Your task to perform on an android device: Go to CNN.com Image 0: 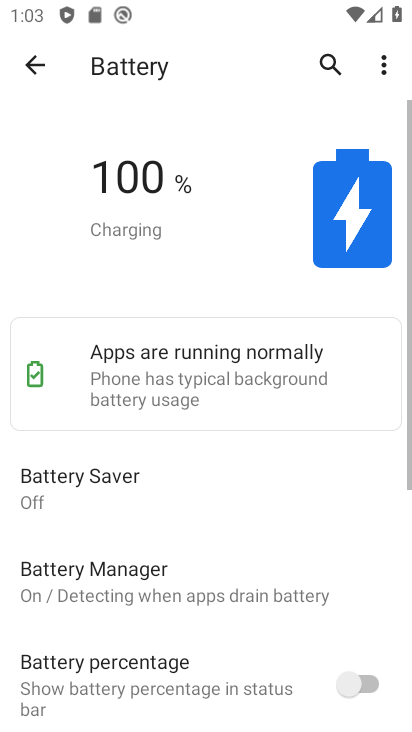
Step 0: press home button
Your task to perform on an android device: Go to CNN.com Image 1: 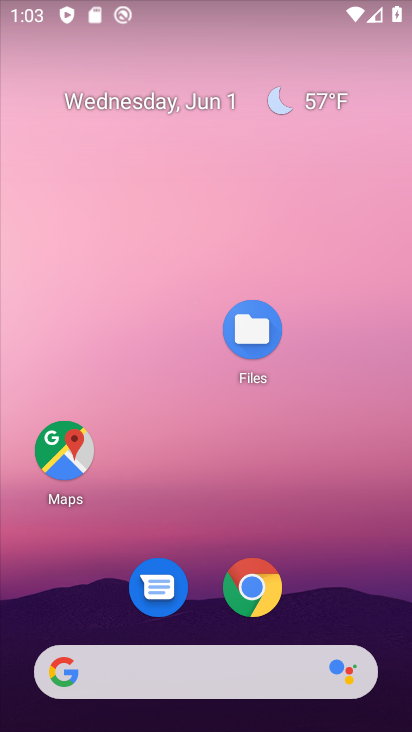
Step 1: click (234, 598)
Your task to perform on an android device: Go to CNN.com Image 2: 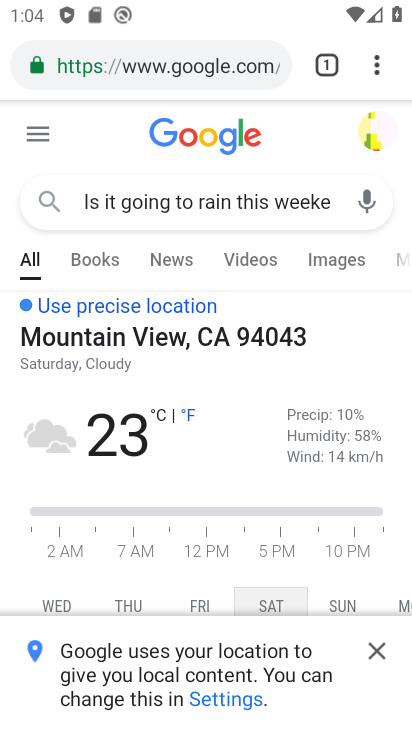
Step 2: click (177, 64)
Your task to perform on an android device: Go to CNN.com Image 3: 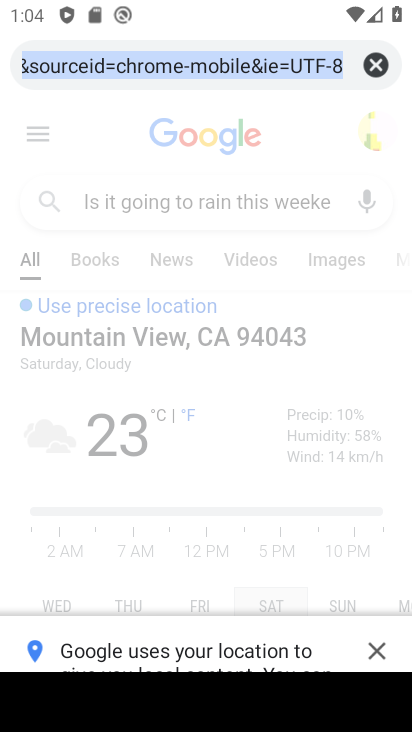
Step 3: click (373, 53)
Your task to perform on an android device: Go to CNN.com Image 4: 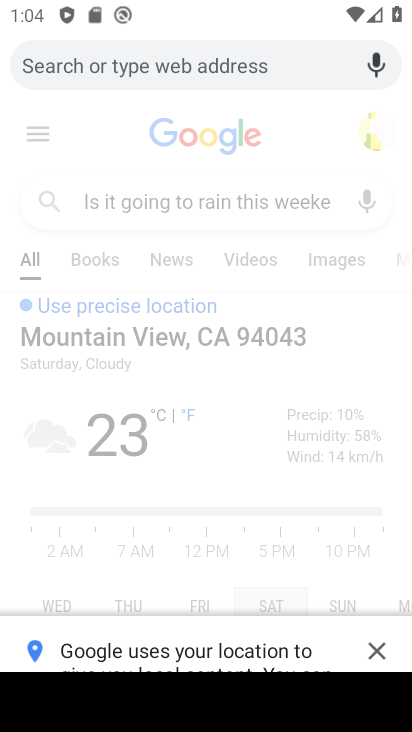
Step 4: type "CNN.com"
Your task to perform on an android device: Go to CNN.com Image 5: 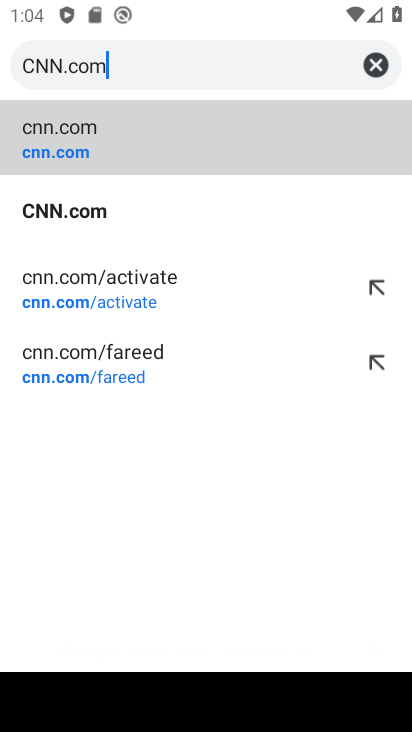
Step 5: click (291, 140)
Your task to perform on an android device: Go to CNN.com Image 6: 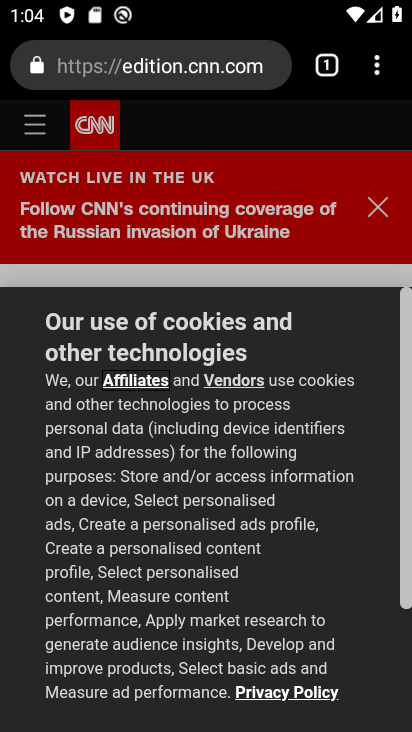
Step 6: task complete